Your task to perform on an android device: turn on the 12-hour format for clock Image 0: 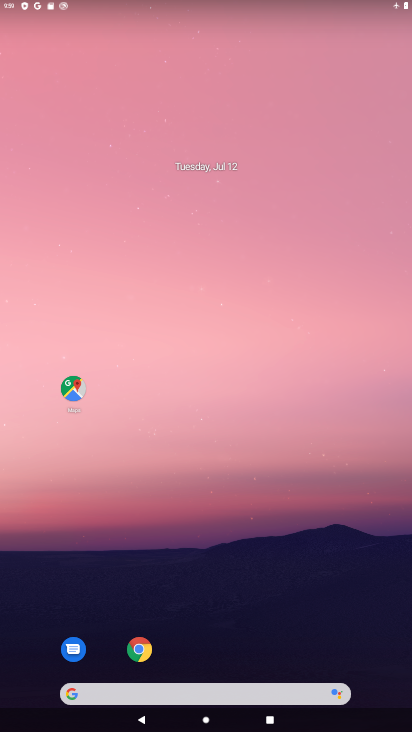
Step 0: drag from (215, 660) to (154, 214)
Your task to perform on an android device: turn on the 12-hour format for clock Image 1: 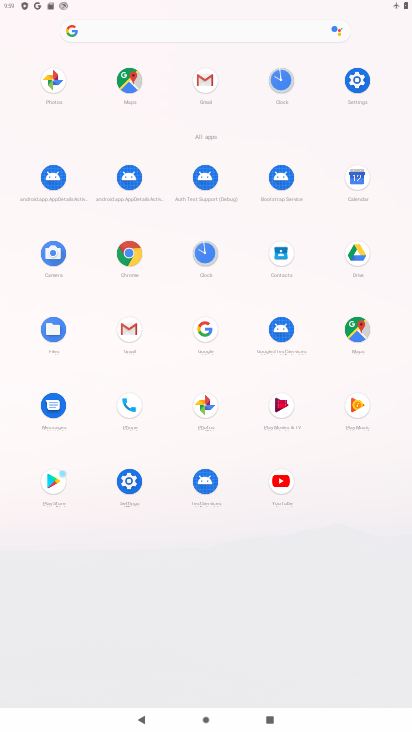
Step 1: click (272, 79)
Your task to perform on an android device: turn on the 12-hour format for clock Image 2: 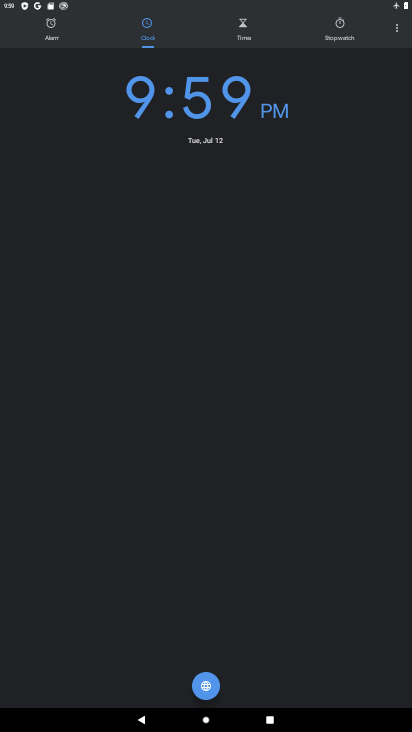
Step 2: click (397, 28)
Your task to perform on an android device: turn on the 12-hour format for clock Image 3: 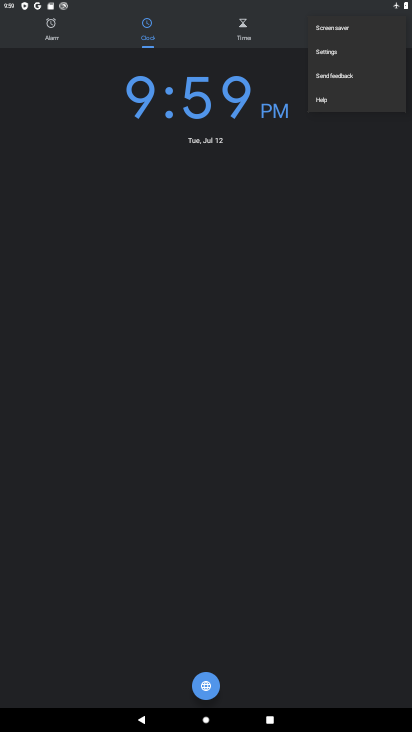
Step 3: click (353, 60)
Your task to perform on an android device: turn on the 12-hour format for clock Image 4: 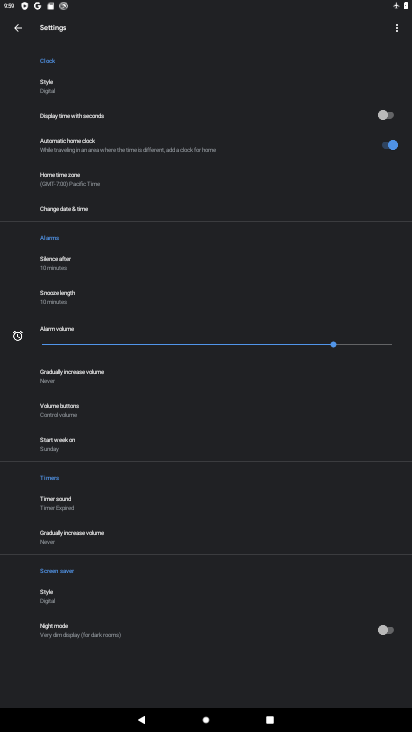
Step 4: click (131, 206)
Your task to perform on an android device: turn on the 12-hour format for clock Image 5: 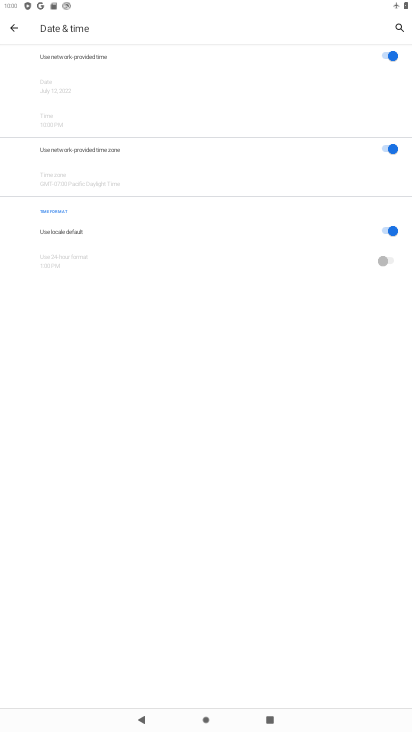
Step 5: task complete